Your task to perform on an android device: turn notification dots on Image 0: 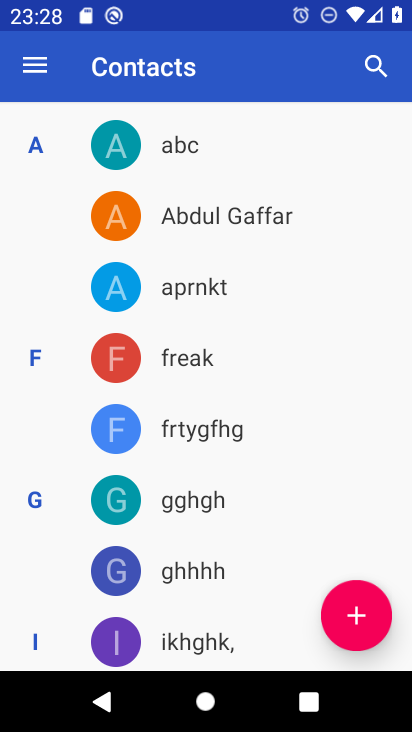
Step 0: press home button
Your task to perform on an android device: turn notification dots on Image 1: 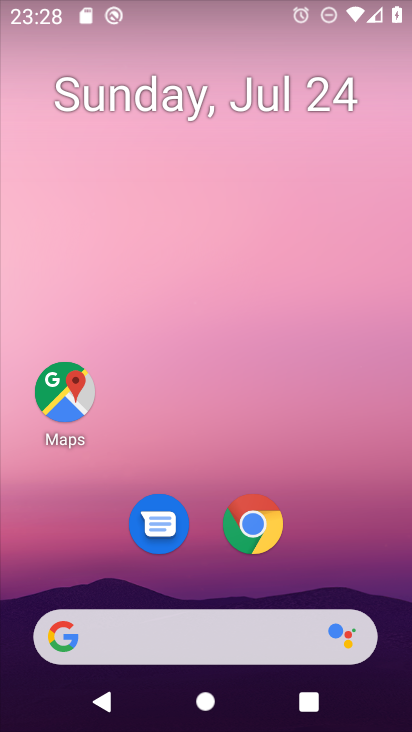
Step 1: drag from (293, 198) to (323, 31)
Your task to perform on an android device: turn notification dots on Image 2: 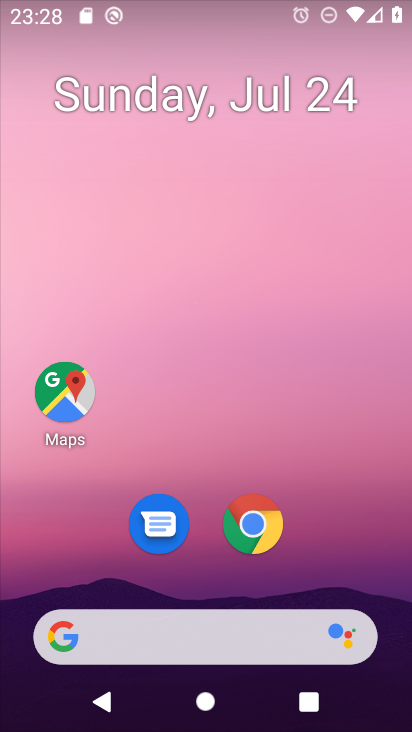
Step 2: drag from (213, 646) to (349, 8)
Your task to perform on an android device: turn notification dots on Image 3: 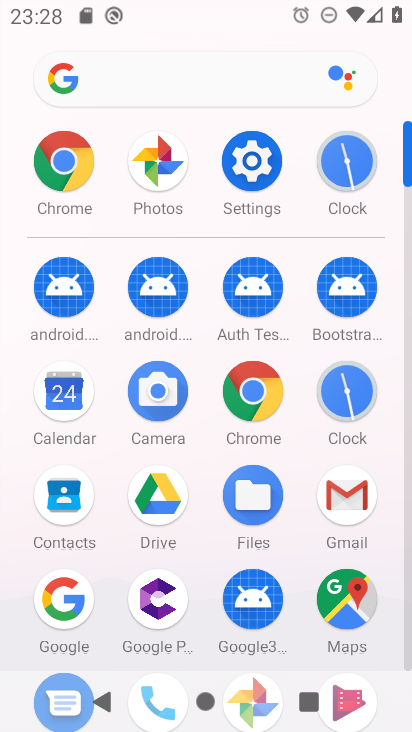
Step 3: click (250, 165)
Your task to perform on an android device: turn notification dots on Image 4: 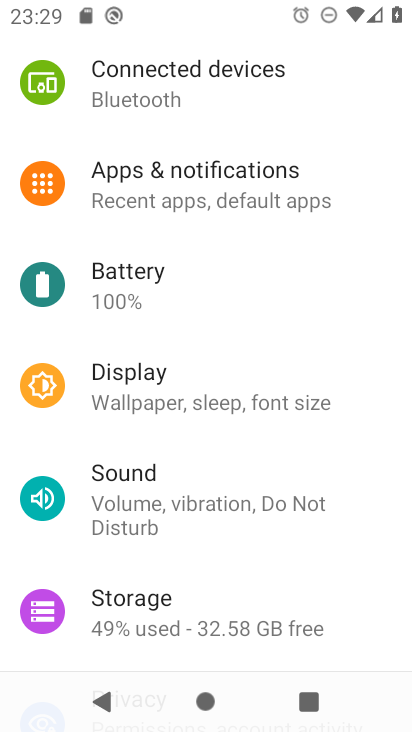
Step 4: click (259, 187)
Your task to perform on an android device: turn notification dots on Image 5: 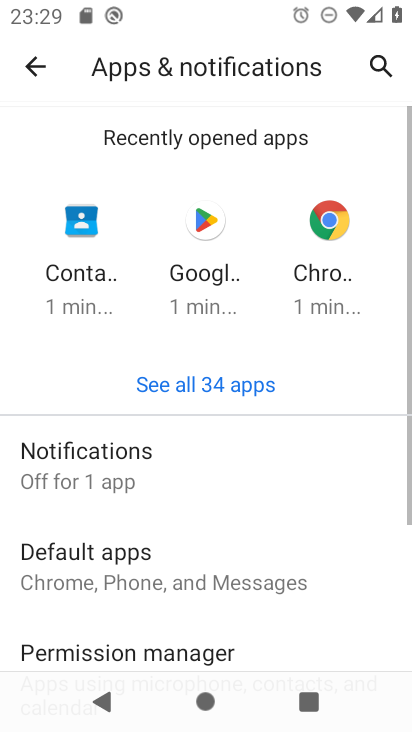
Step 5: click (122, 462)
Your task to perform on an android device: turn notification dots on Image 6: 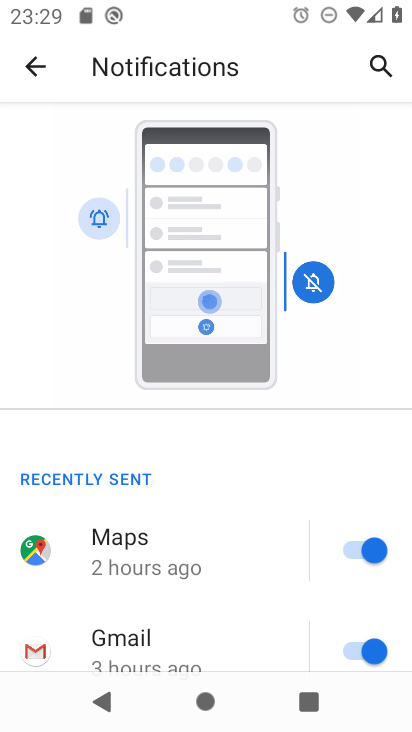
Step 6: drag from (251, 626) to (346, 243)
Your task to perform on an android device: turn notification dots on Image 7: 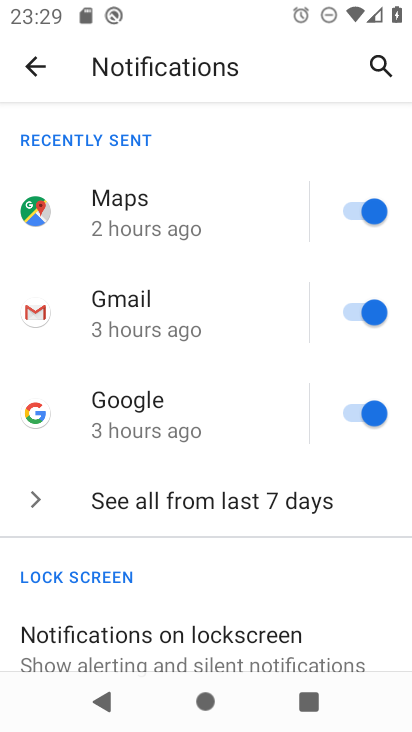
Step 7: drag from (243, 588) to (338, 184)
Your task to perform on an android device: turn notification dots on Image 8: 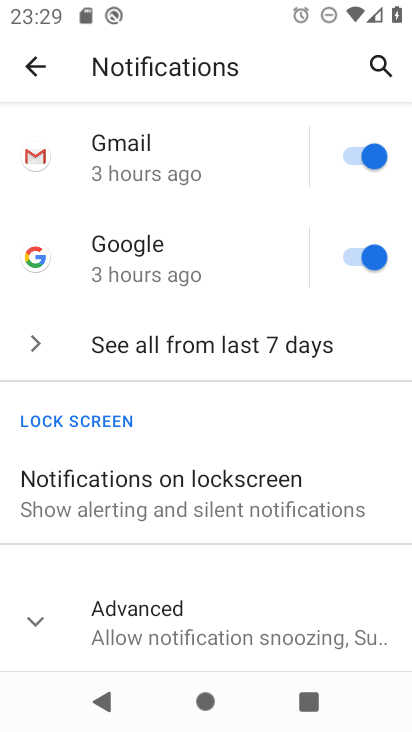
Step 8: click (186, 613)
Your task to perform on an android device: turn notification dots on Image 9: 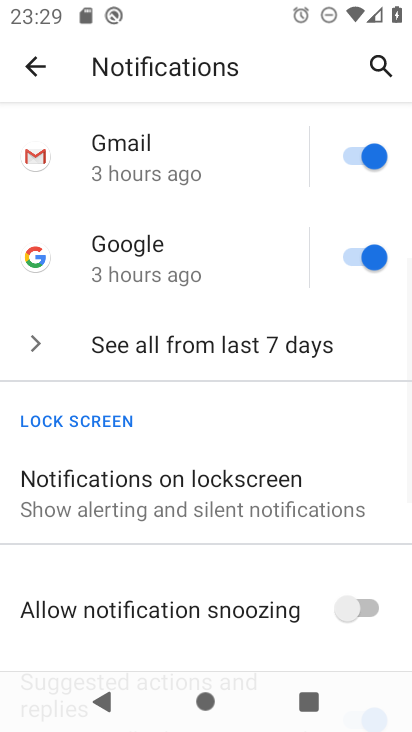
Step 9: task complete